Your task to perform on an android device: see tabs open on other devices in the chrome app Image 0: 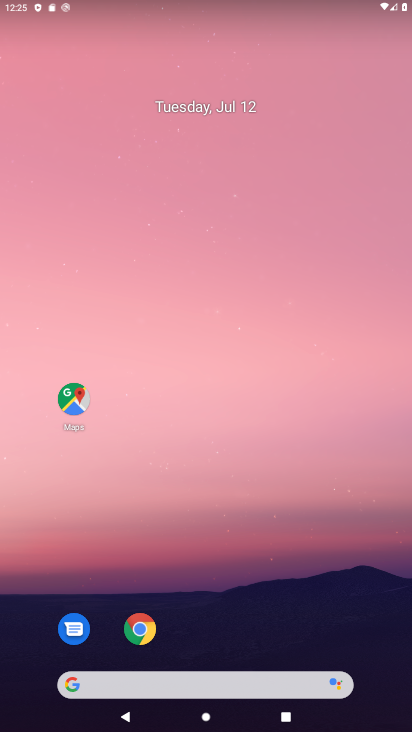
Step 0: drag from (168, 686) to (280, 62)
Your task to perform on an android device: see tabs open on other devices in the chrome app Image 1: 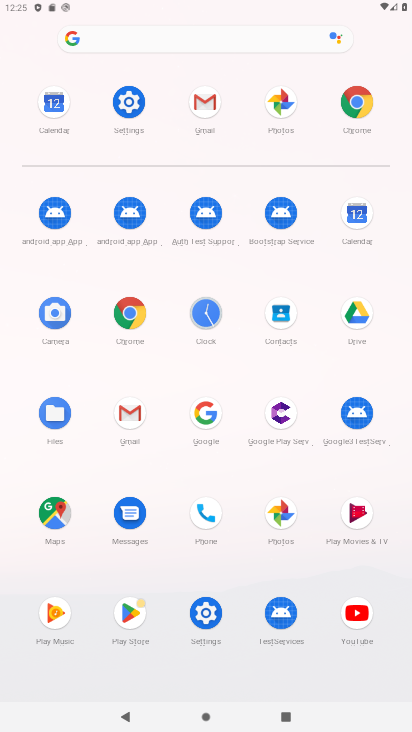
Step 1: click (122, 317)
Your task to perform on an android device: see tabs open on other devices in the chrome app Image 2: 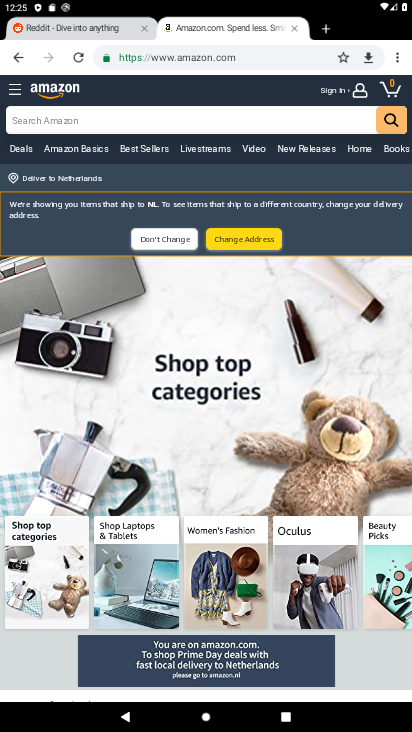
Step 2: task complete